Your task to perform on an android device: Play the new Beyonce video on YouTube Image 0: 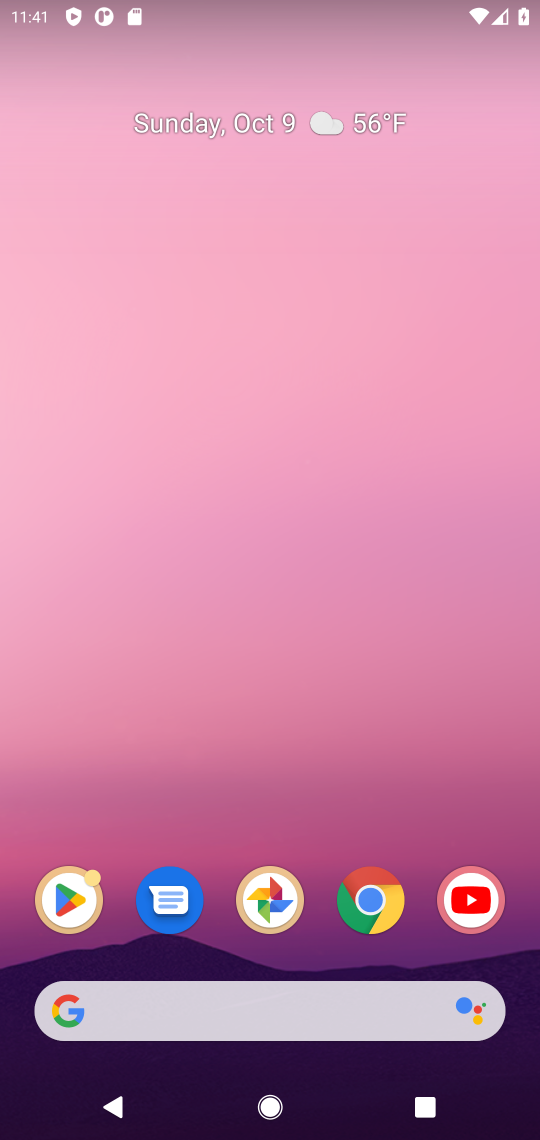
Step 0: click (268, 1017)
Your task to perform on an android device: Play the new Beyonce video on YouTube Image 1: 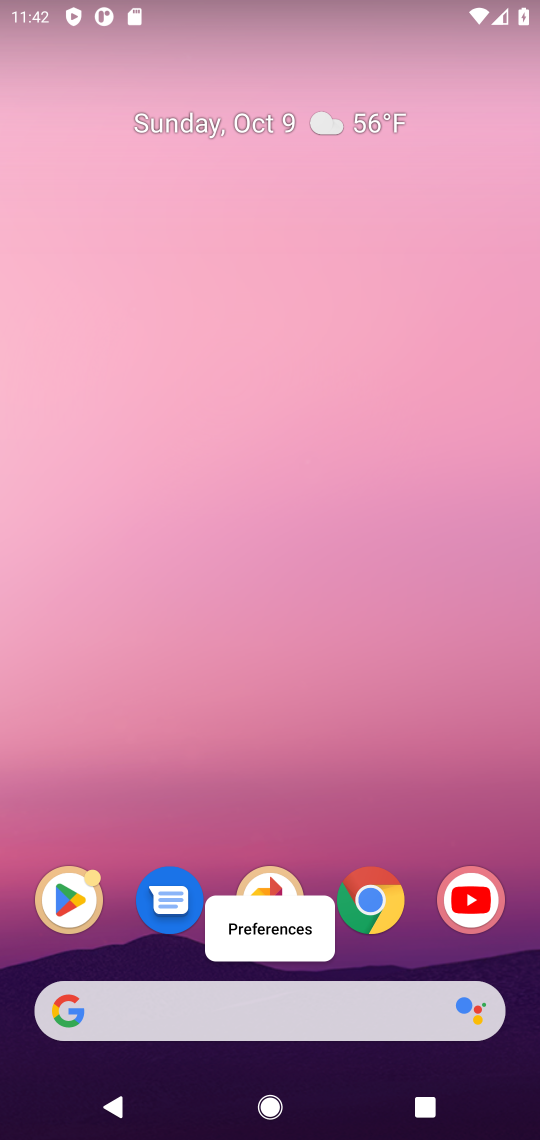
Step 1: click (371, 874)
Your task to perform on an android device: Play the new Beyonce video on YouTube Image 2: 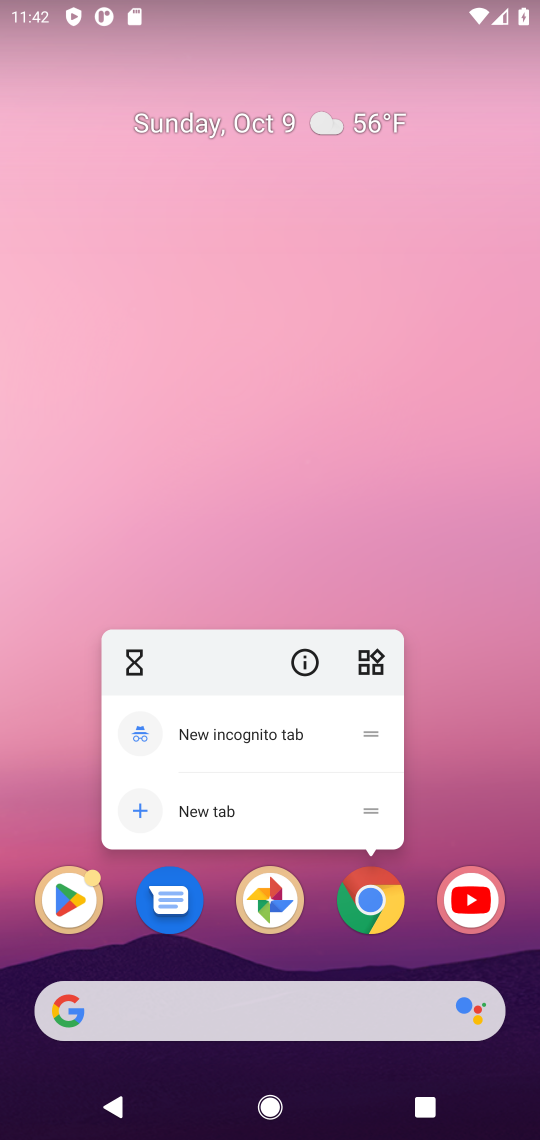
Step 2: click (303, 972)
Your task to perform on an android device: Play the new Beyonce video on YouTube Image 3: 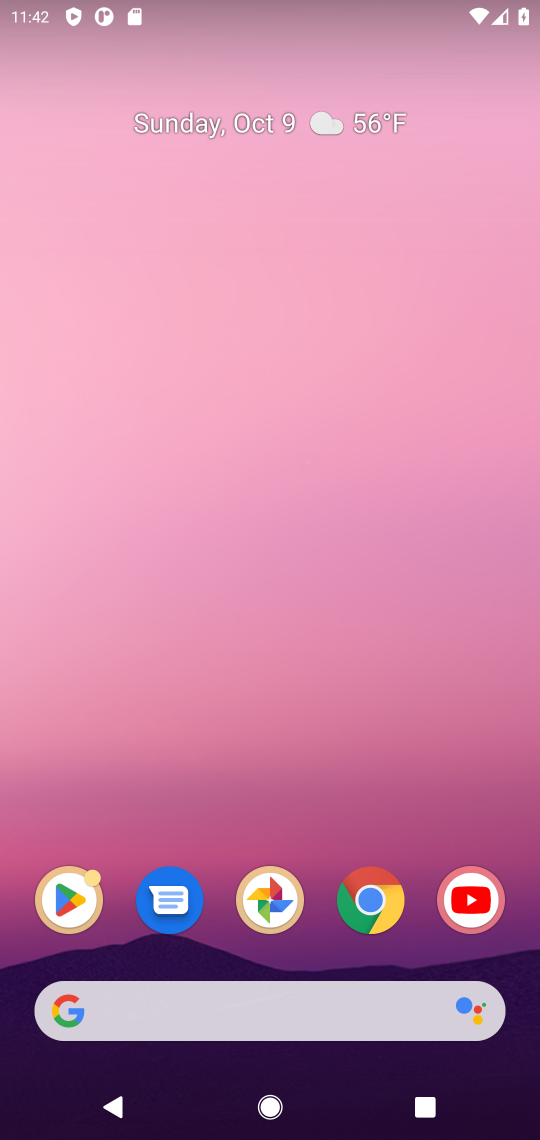
Step 3: drag from (271, 971) to (314, 2)
Your task to perform on an android device: Play the new Beyonce video on YouTube Image 4: 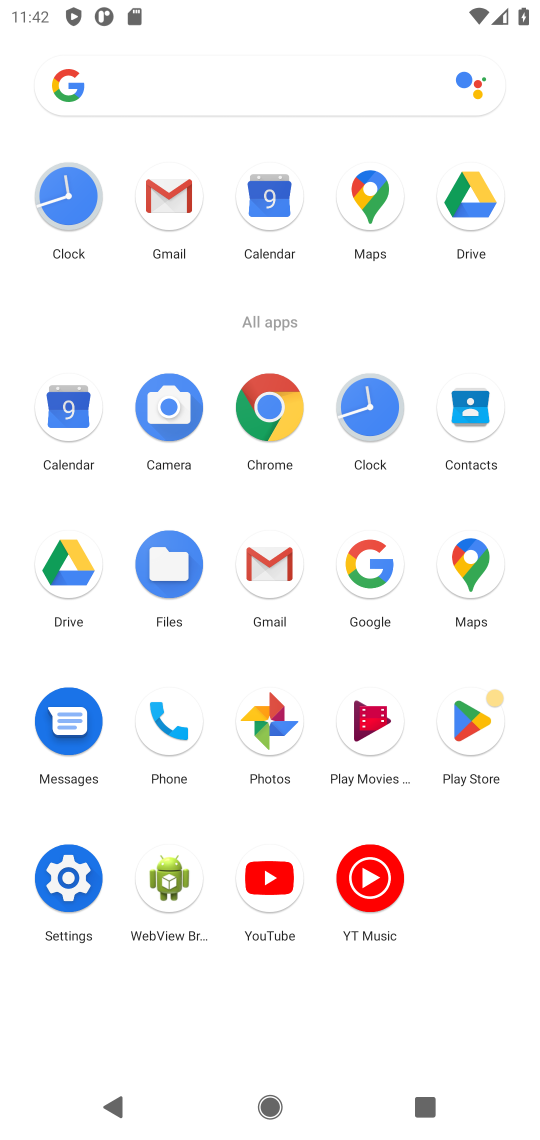
Step 4: click (257, 414)
Your task to perform on an android device: Play the new Beyonce video on YouTube Image 5: 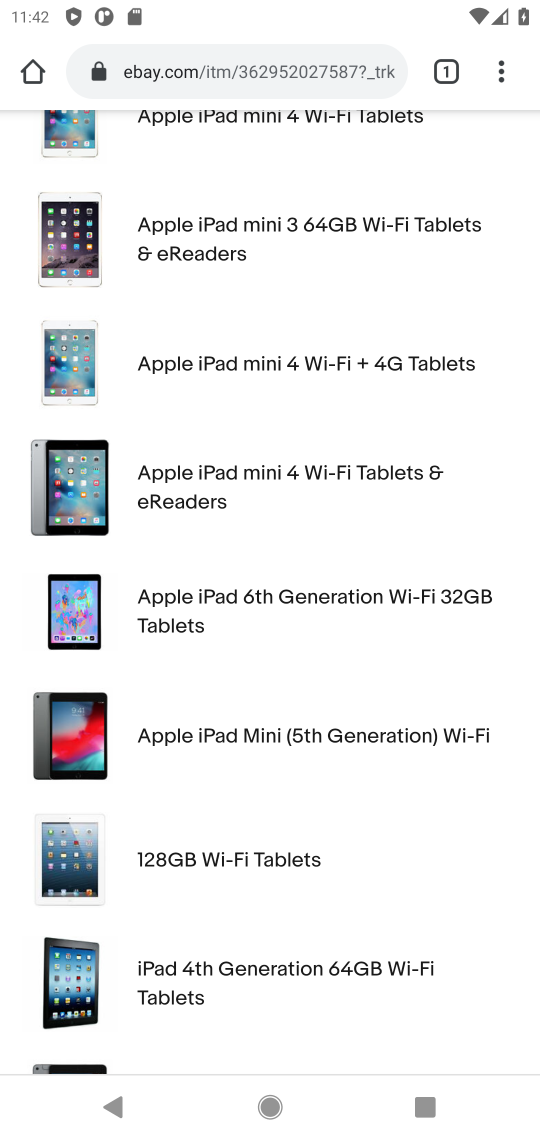
Step 5: click (201, 66)
Your task to perform on an android device: Play the new Beyonce video on YouTube Image 6: 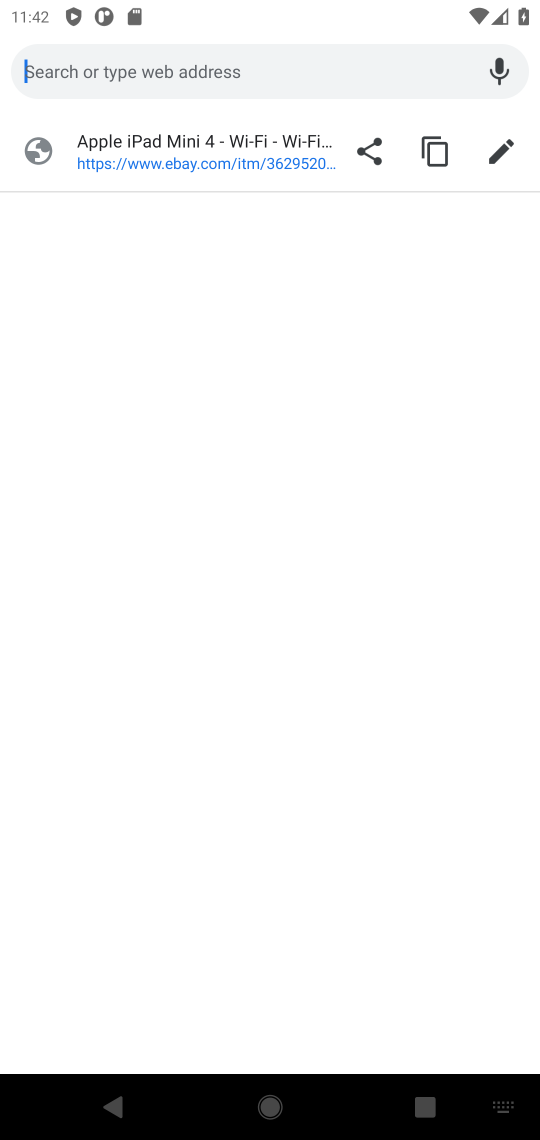
Step 6: type "Play the new Beyonce video on YouTube"
Your task to perform on an android device: Play the new Beyonce video on YouTube Image 7: 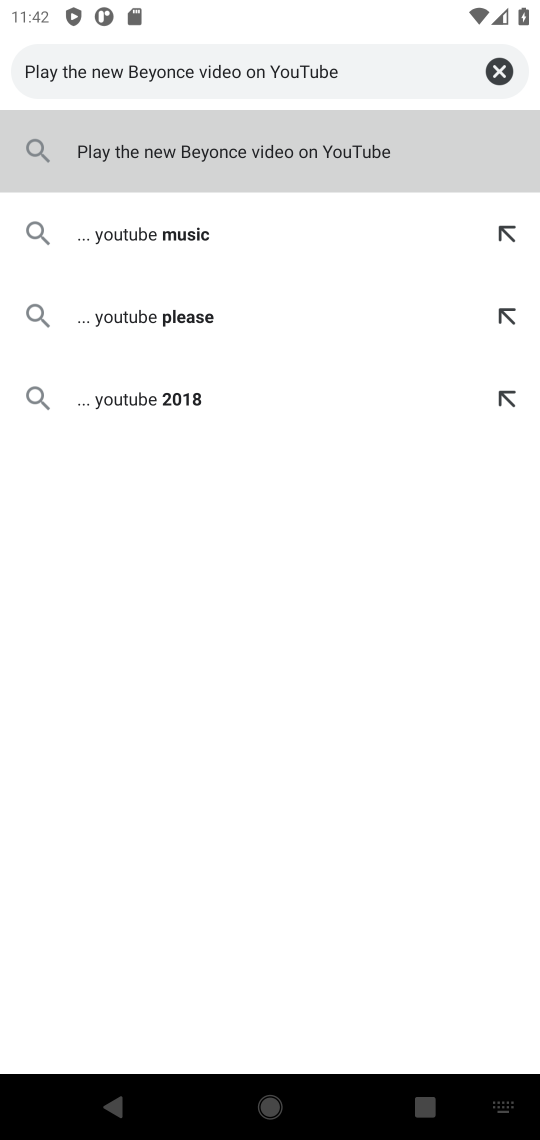
Step 7: type ""
Your task to perform on an android device: Play the new Beyonce video on YouTube Image 8: 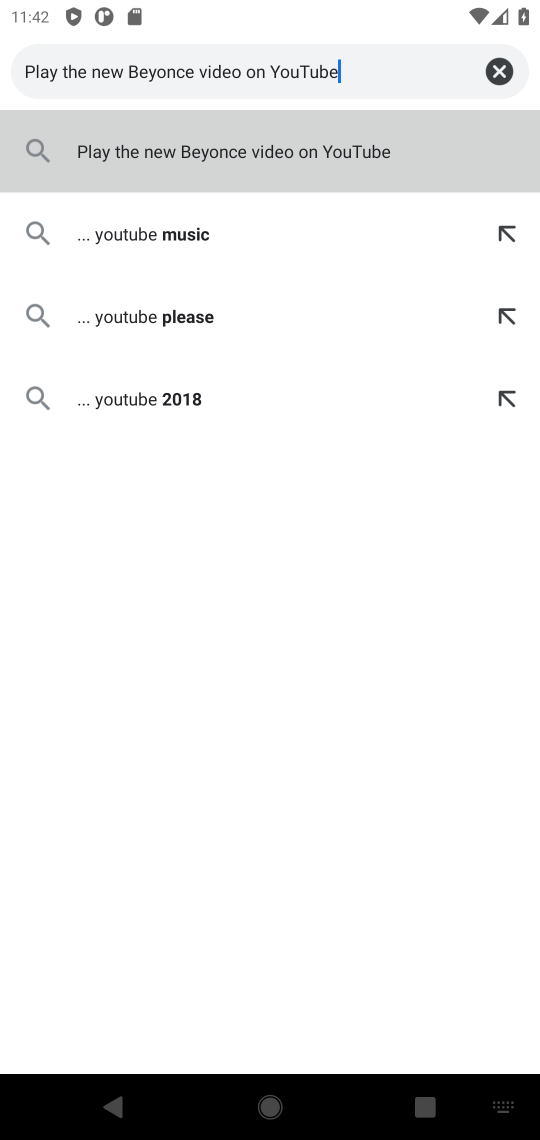
Step 8: click (431, 163)
Your task to perform on an android device: Play the new Beyonce video on YouTube Image 9: 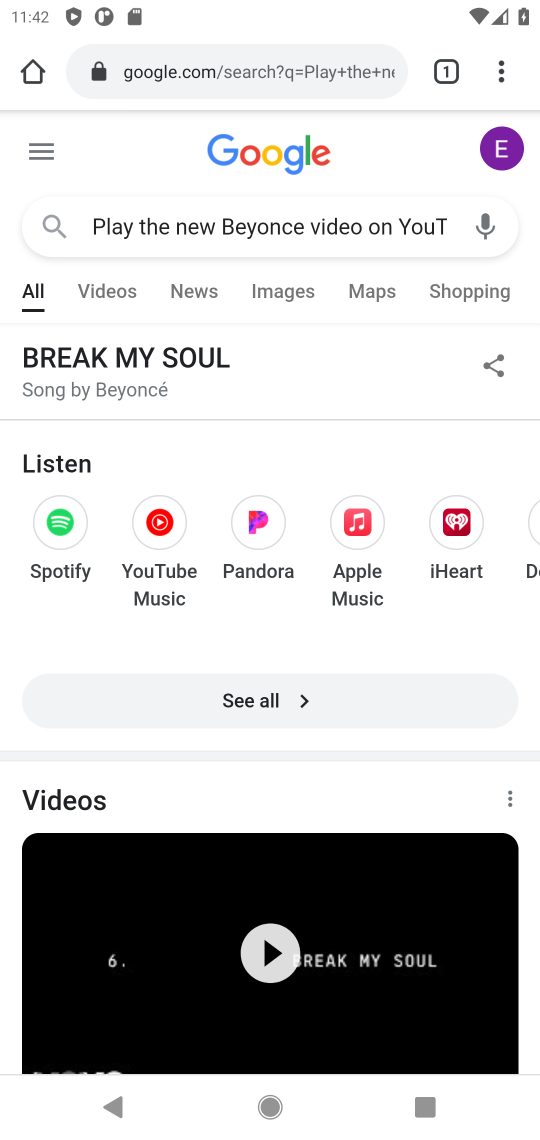
Step 9: drag from (276, 894) to (274, 342)
Your task to perform on an android device: Play the new Beyonce video on YouTube Image 10: 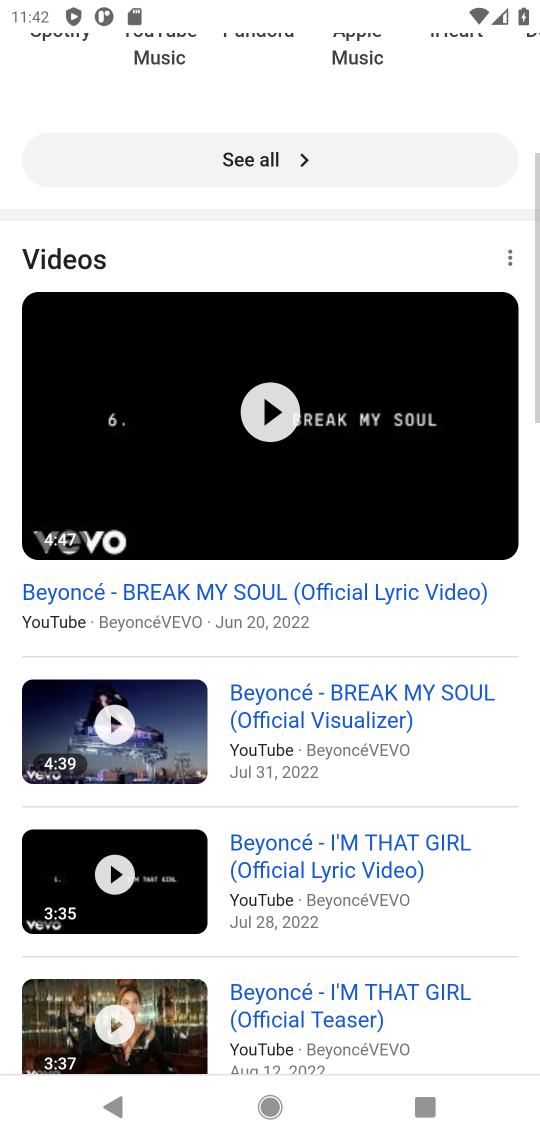
Step 10: drag from (324, 672) to (319, 531)
Your task to perform on an android device: Play the new Beyonce video on YouTube Image 11: 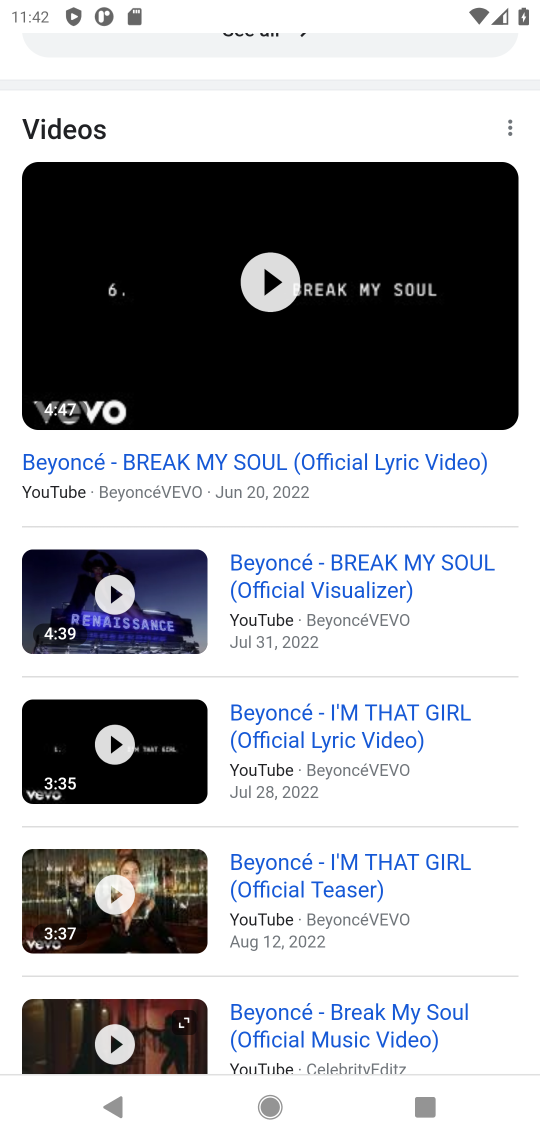
Step 11: click (289, 460)
Your task to perform on an android device: Play the new Beyonce video on YouTube Image 12: 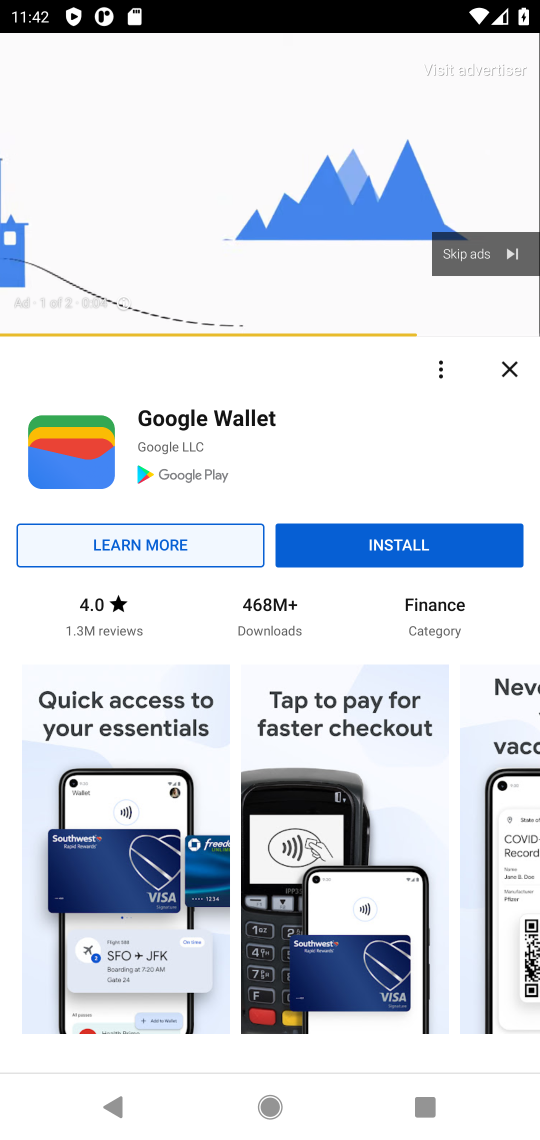
Step 12: click (458, 260)
Your task to perform on an android device: Play the new Beyonce video on YouTube Image 13: 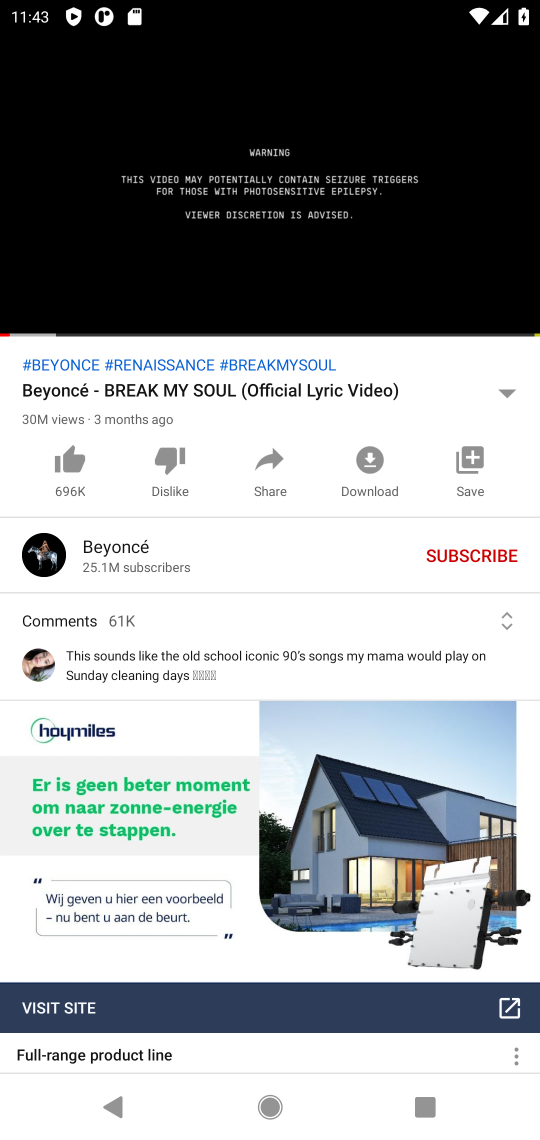
Step 13: click (127, 539)
Your task to perform on an android device: Play the new Beyonce video on YouTube Image 14: 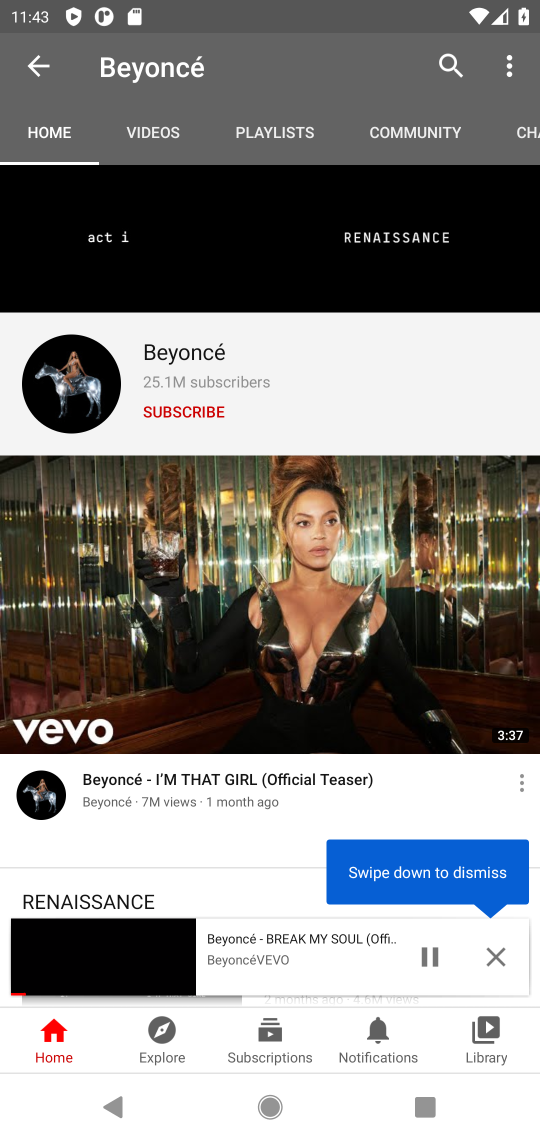
Step 14: click (510, 946)
Your task to perform on an android device: Play the new Beyonce video on YouTube Image 15: 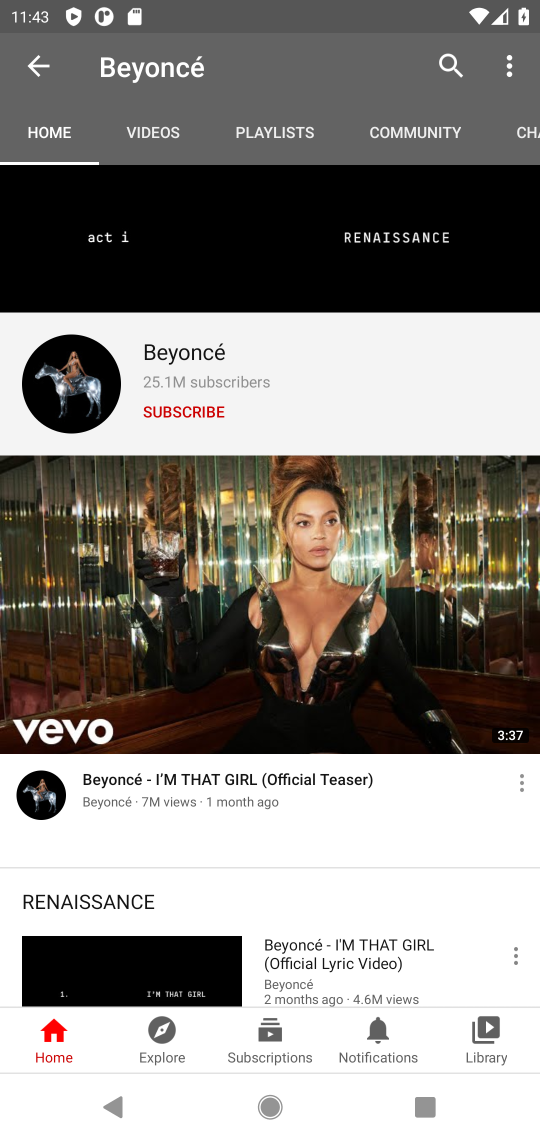
Step 15: click (160, 121)
Your task to perform on an android device: Play the new Beyonce video on YouTube Image 16: 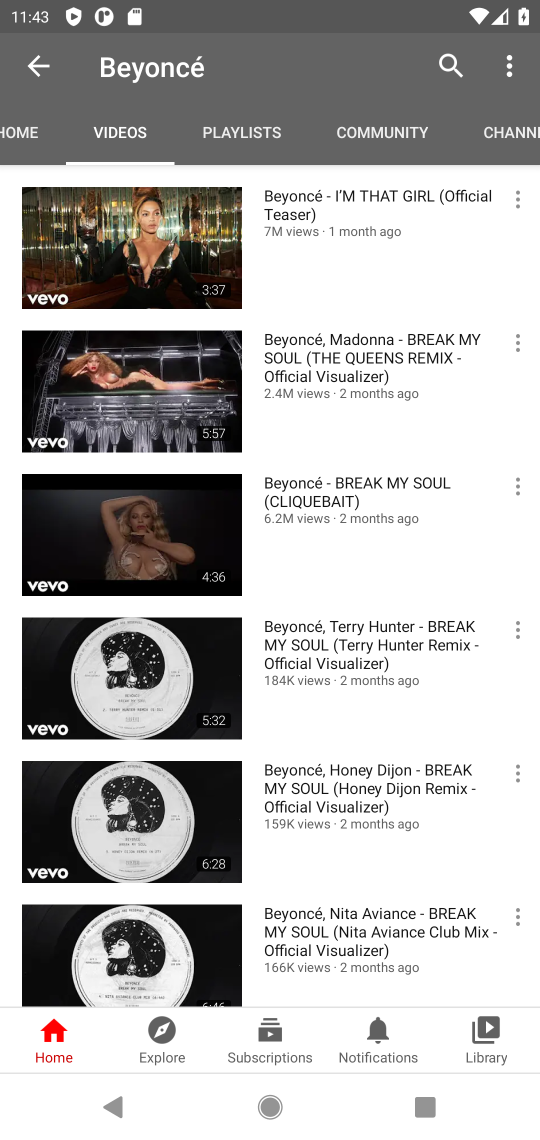
Step 16: click (173, 216)
Your task to perform on an android device: Play the new Beyonce video on YouTube Image 17: 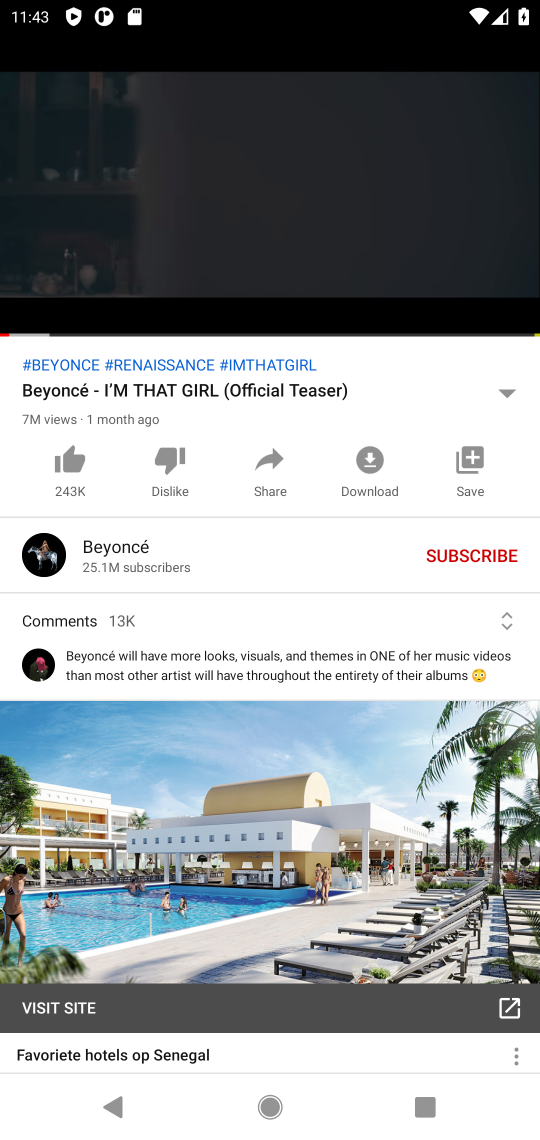
Step 17: task complete